Your task to perform on an android device: Open Yahoo.com Image 0: 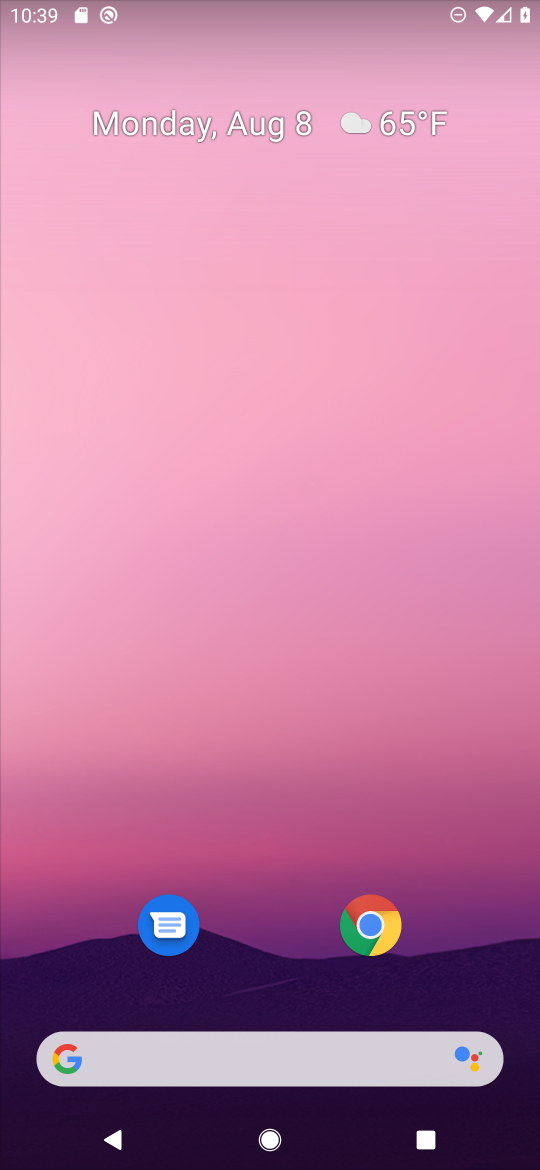
Step 0: drag from (277, 846) to (330, 155)
Your task to perform on an android device: Open Yahoo.com Image 1: 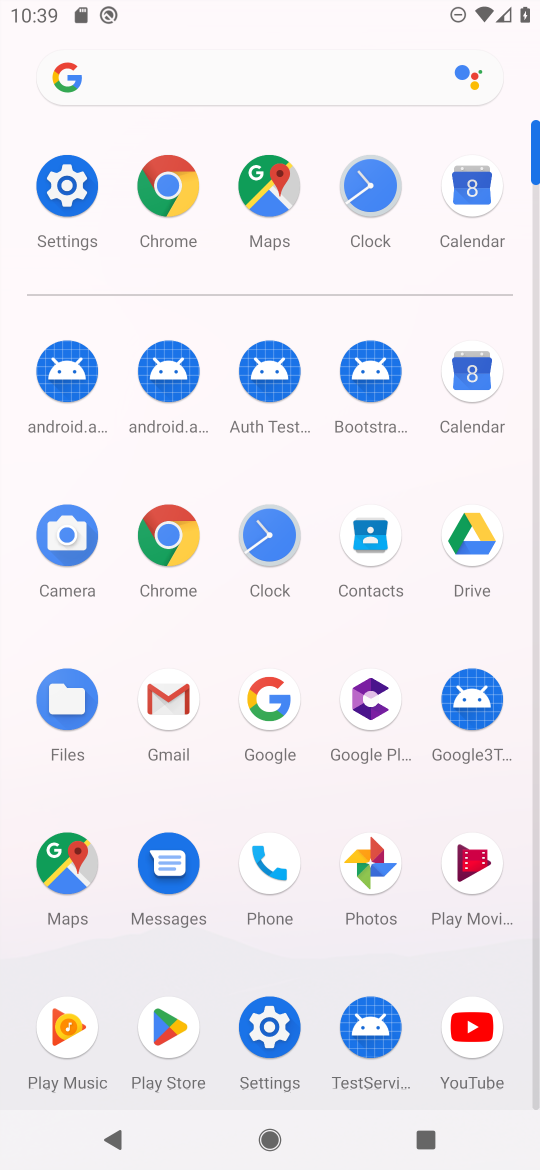
Step 1: click (162, 546)
Your task to perform on an android device: Open Yahoo.com Image 2: 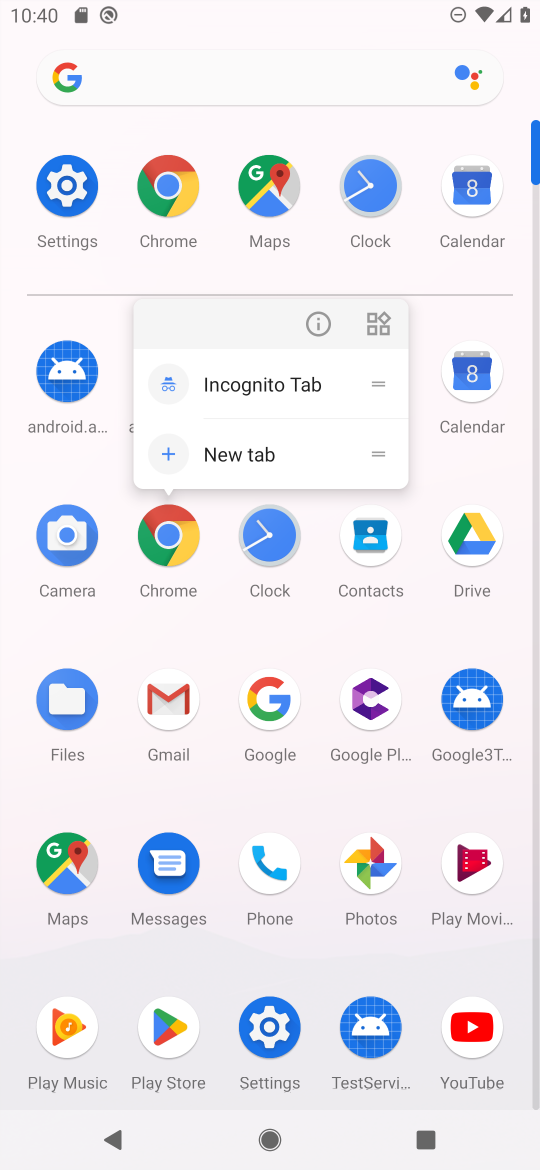
Step 2: click (162, 542)
Your task to perform on an android device: Open Yahoo.com Image 3: 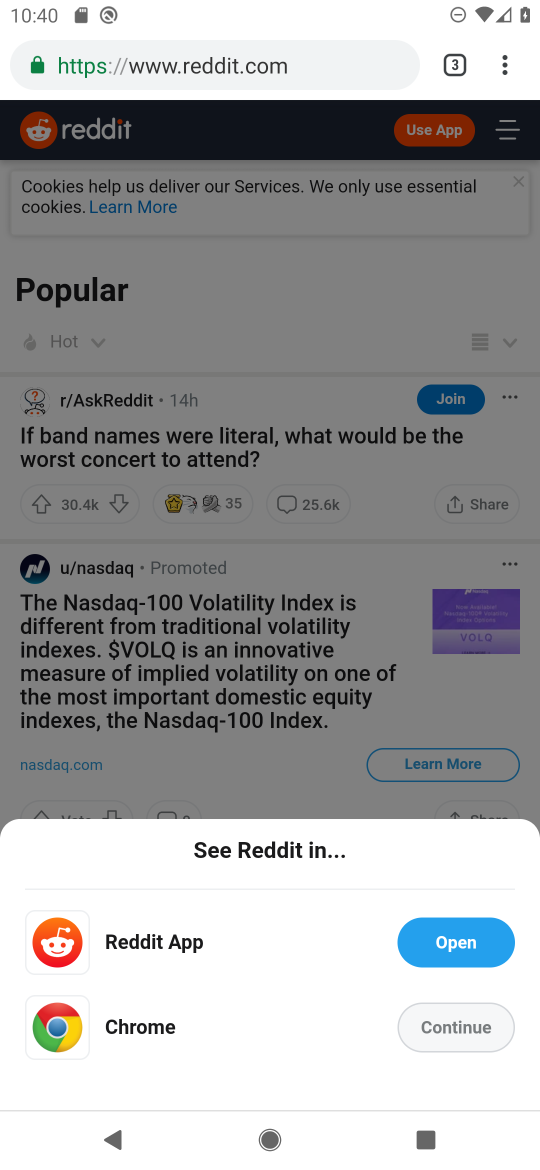
Step 3: click (205, 64)
Your task to perform on an android device: Open Yahoo.com Image 4: 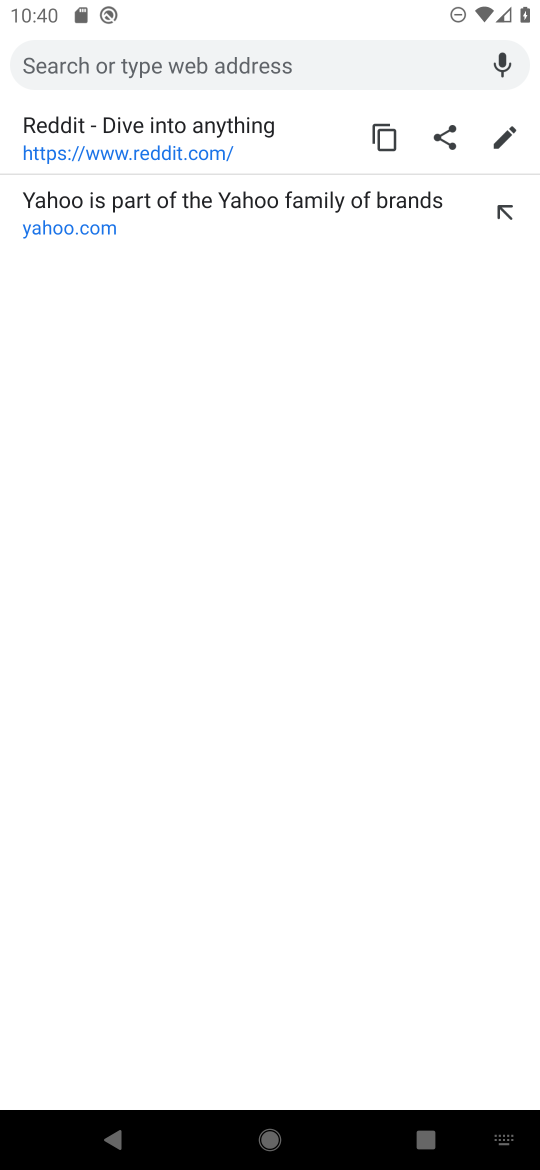
Step 4: click (60, 236)
Your task to perform on an android device: Open Yahoo.com Image 5: 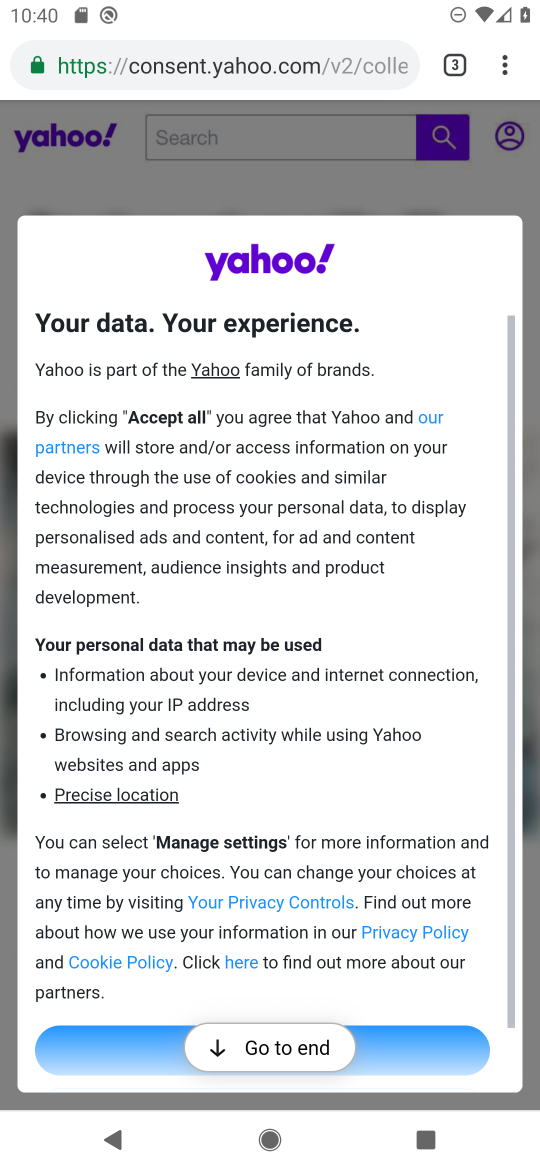
Step 5: task complete